Your task to perform on an android device: Empty the shopping cart on target. Add razer blade to the cart on target, then select checkout. Image 0: 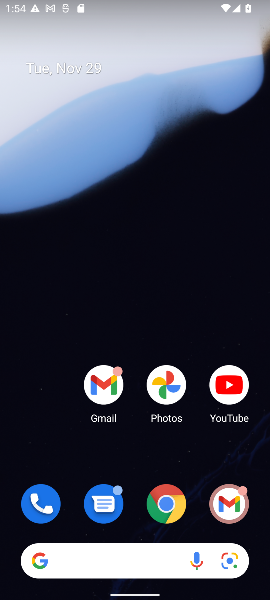
Step 0: click (170, 499)
Your task to perform on an android device: Empty the shopping cart on target. Add razer blade to the cart on target, then select checkout. Image 1: 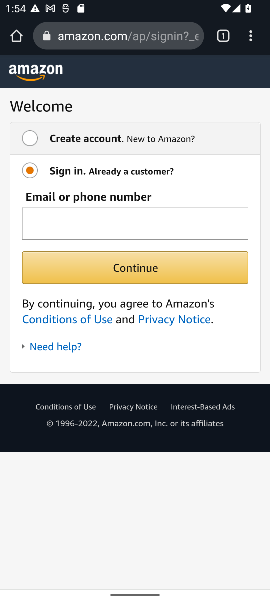
Step 1: click (99, 33)
Your task to perform on an android device: Empty the shopping cart on target. Add razer blade to the cart on target, then select checkout. Image 2: 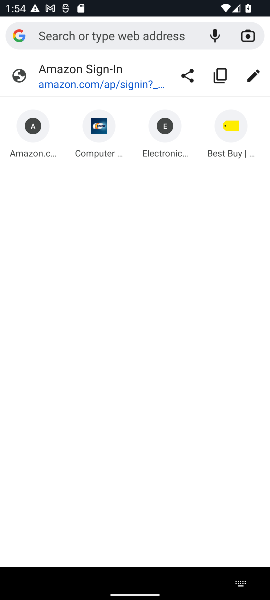
Step 2: type "target.com"
Your task to perform on an android device: Empty the shopping cart on target. Add razer blade to the cart on target, then select checkout. Image 3: 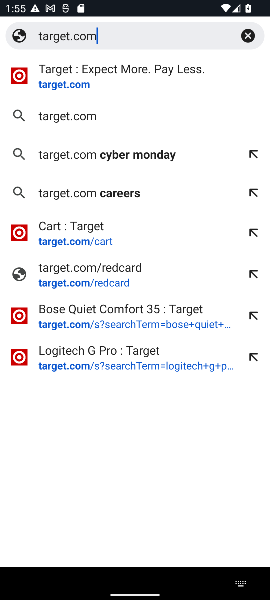
Step 3: click (38, 89)
Your task to perform on an android device: Empty the shopping cart on target. Add razer blade to the cart on target, then select checkout. Image 4: 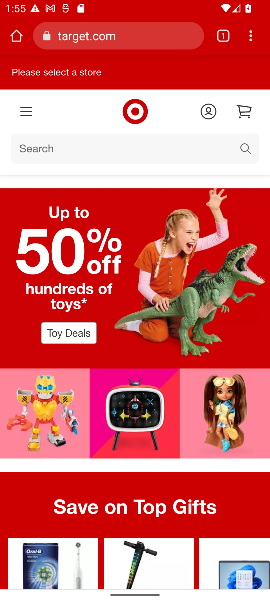
Step 4: click (243, 111)
Your task to perform on an android device: Empty the shopping cart on target. Add razer blade to the cart on target, then select checkout. Image 5: 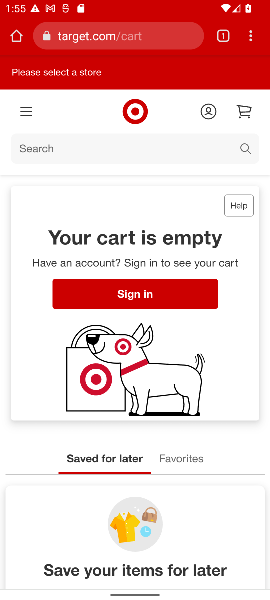
Step 5: click (33, 152)
Your task to perform on an android device: Empty the shopping cart on target. Add razer blade to the cart on target, then select checkout. Image 6: 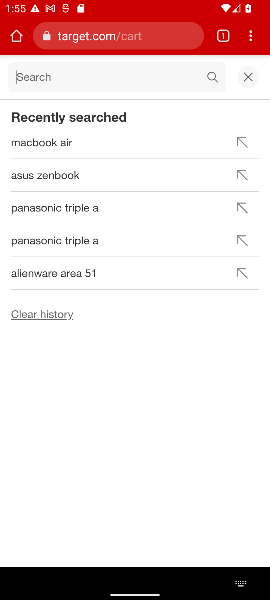
Step 6: type "razer blade"
Your task to perform on an android device: Empty the shopping cart on target. Add razer blade to the cart on target, then select checkout. Image 7: 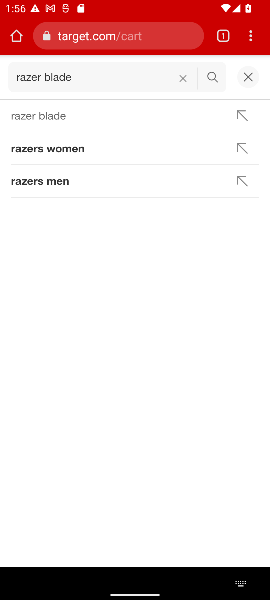
Step 7: click (37, 119)
Your task to perform on an android device: Empty the shopping cart on target. Add razer blade to the cart on target, then select checkout. Image 8: 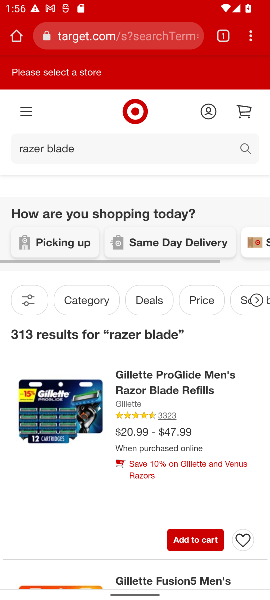
Step 8: task complete